Your task to perform on an android device: Show me the alarms in the clock app Image 0: 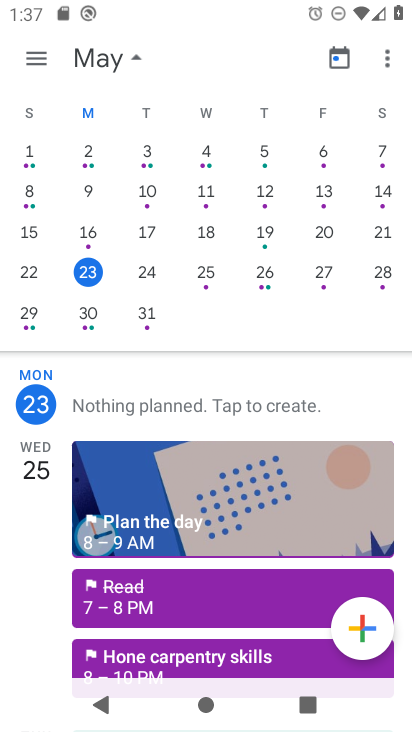
Step 0: press home button
Your task to perform on an android device: Show me the alarms in the clock app Image 1: 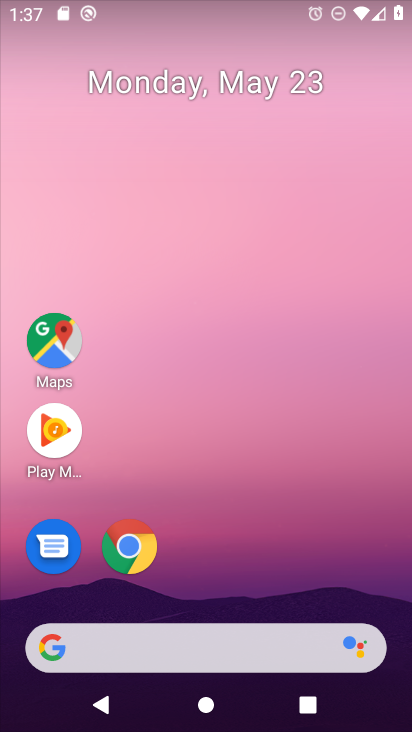
Step 1: drag from (259, 644) to (325, 46)
Your task to perform on an android device: Show me the alarms in the clock app Image 2: 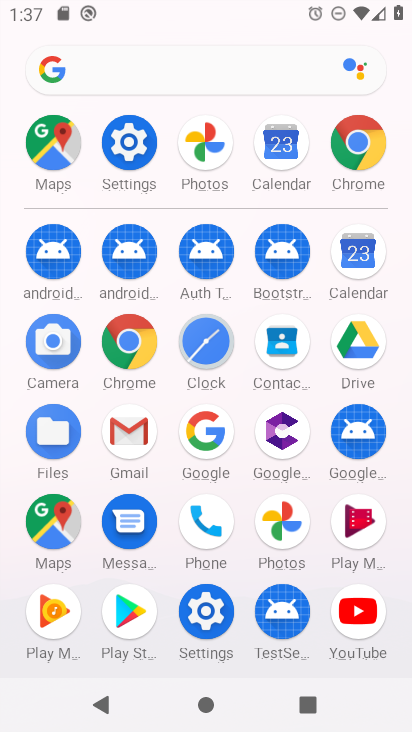
Step 2: click (202, 350)
Your task to perform on an android device: Show me the alarms in the clock app Image 3: 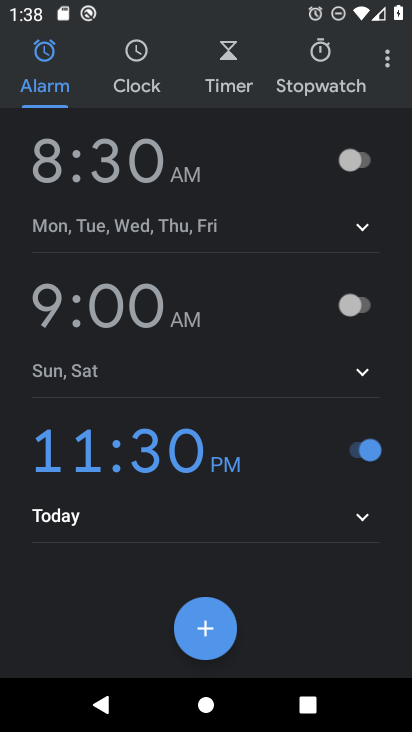
Step 3: task complete